Your task to perform on an android device: Search for Italian restaurants on Maps Image 0: 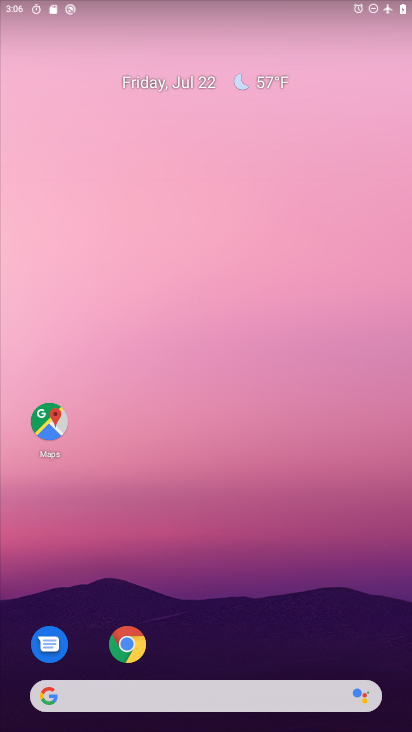
Step 0: click (53, 418)
Your task to perform on an android device: Search for Italian restaurants on Maps Image 1: 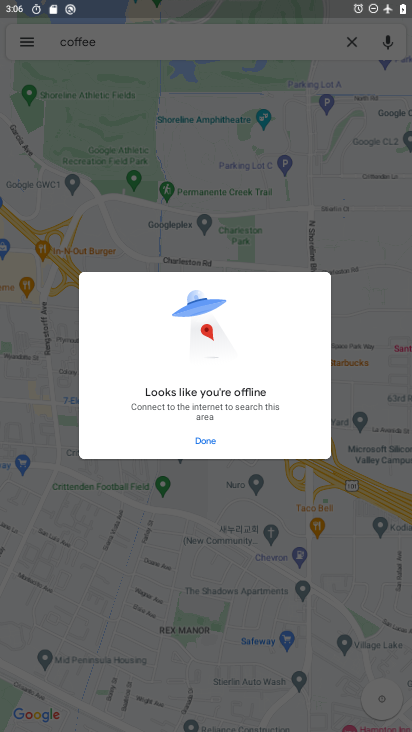
Step 1: task complete